Your task to perform on an android device: Play the last video I watched on Youtube Image 0: 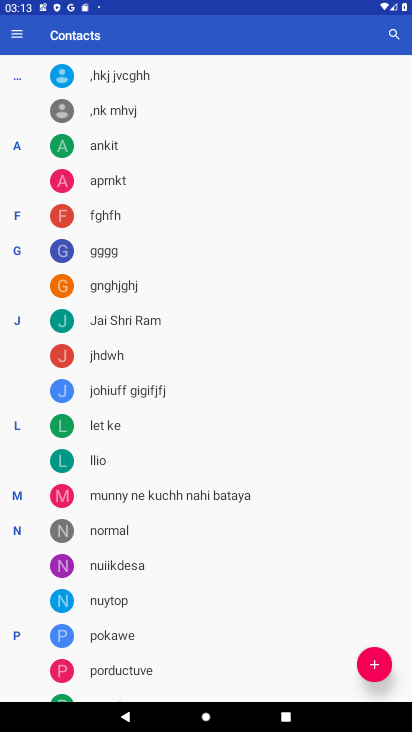
Step 0: press home button
Your task to perform on an android device: Play the last video I watched on Youtube Image 1: 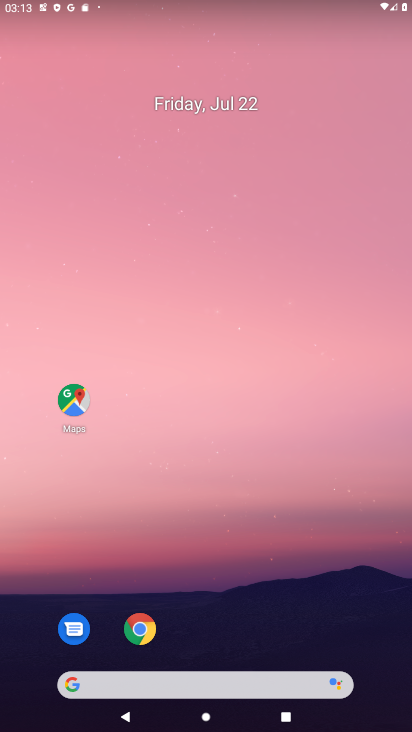
Step 1: drag from (252, 568) to (215, 104)
Your task to perform on an android device: Play the last video I watched on Youtube Image 2: 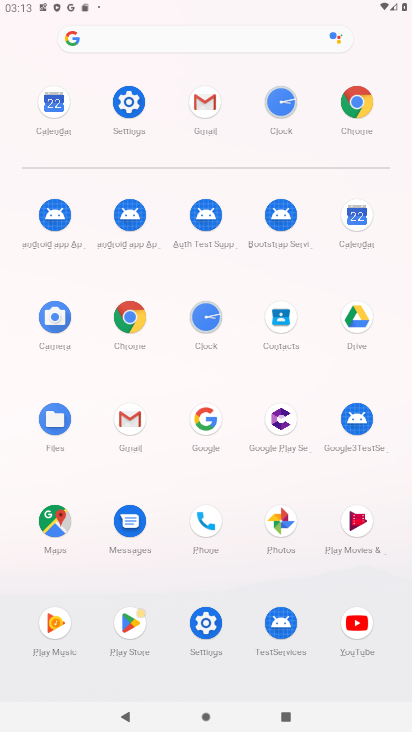
Step 2: click (355, 622)
Your task to perform on an android device: Play the last video I watched on Youtube Image 3: 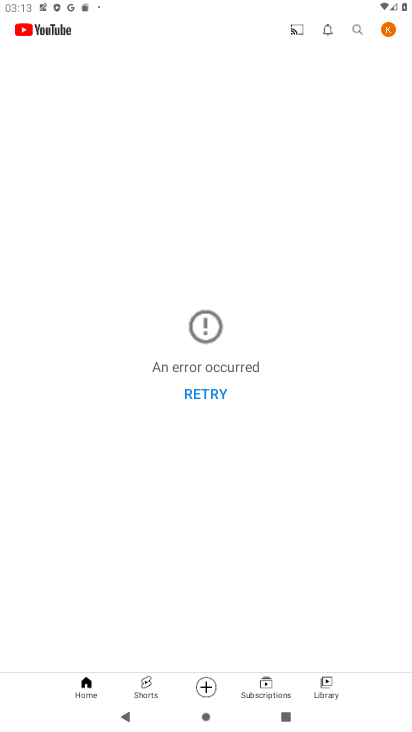
Step 3: click (327, 687)
Your task to perform on an android device: Play the last video I watched on Youtube Image 4: 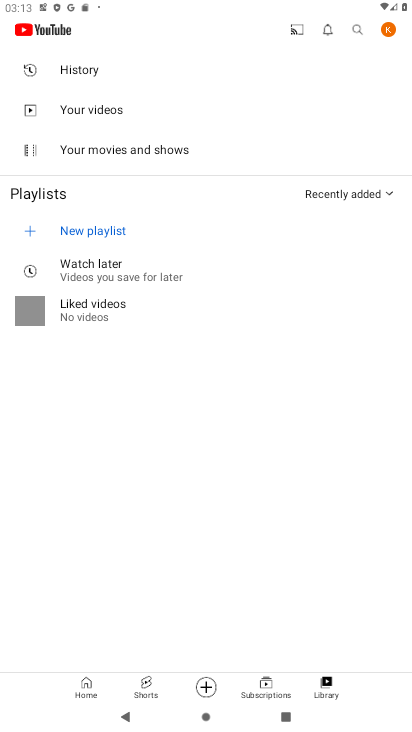
Step 4: click (71, 70)
Your task to perform on an android device: Play the last video I watched on Youtube Image 5: 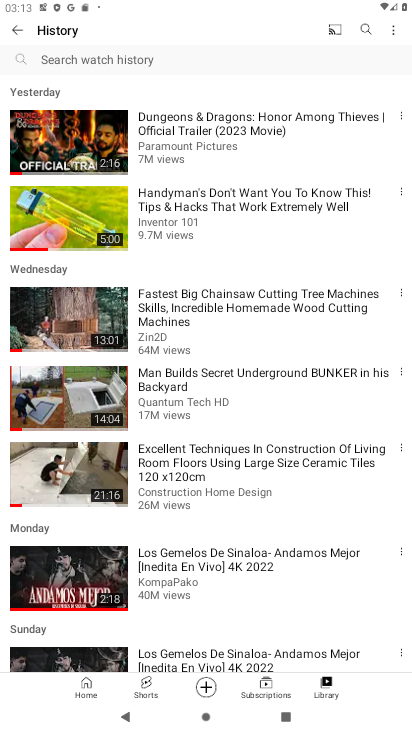
Step 5: task complete